Your task to perform on an android device: Open Maps and search for coffee Image 0: 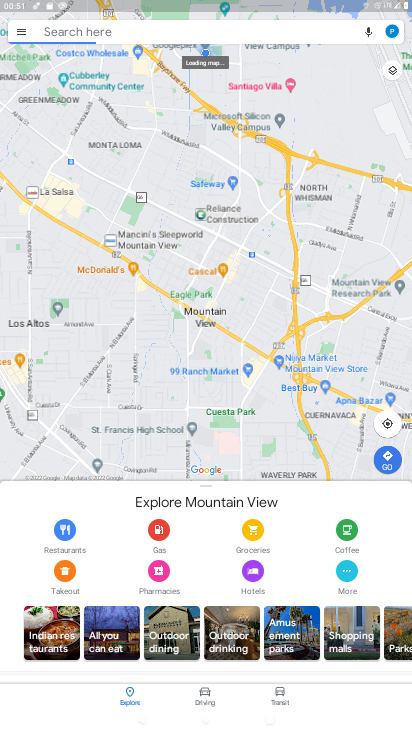
Step 0: click (184, 28)
Your task to perform on an android device: Open Maps and search for coffee Image 1: 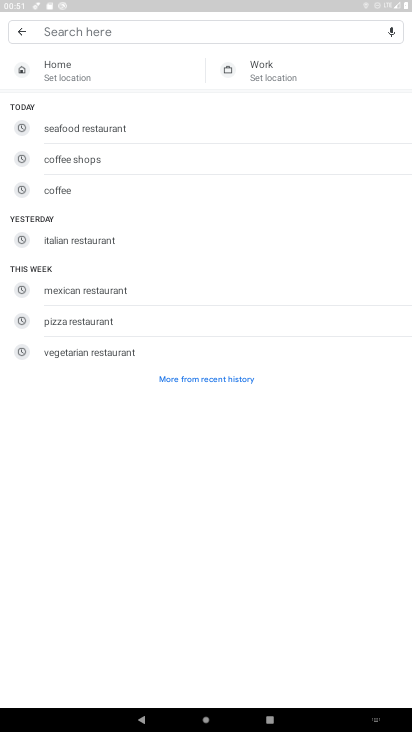
Step 1: type "coffee"
Your task to perform on an android device: Open Maps and search for coffee Image 2: 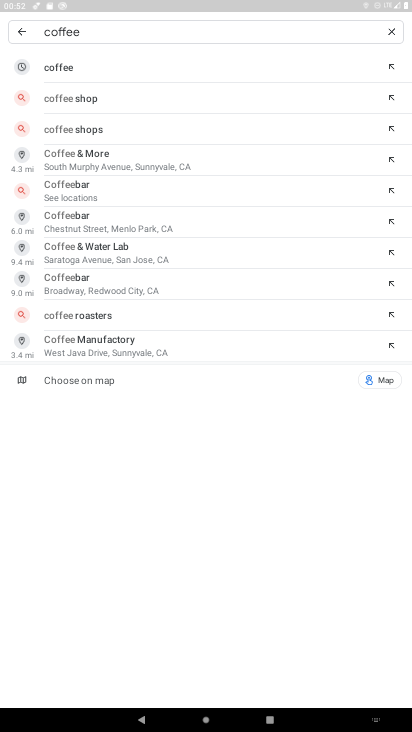
Step 2: click (54, 68)
Your task to perform on an android device: Open Maps and search for coffee Image 3: 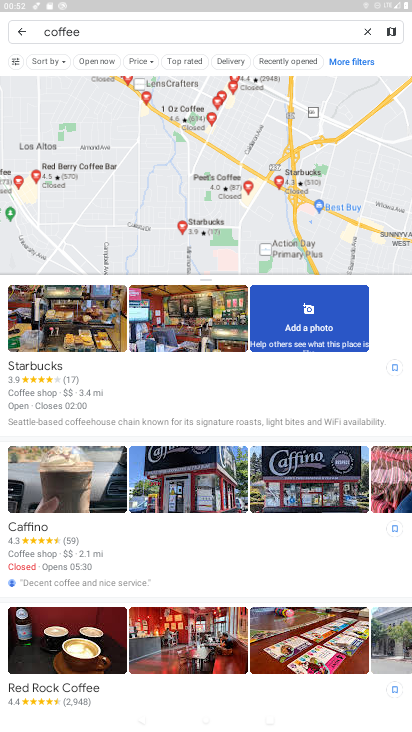
Step 3: task complete